Your task to perform on an android device: Turn off the flashlight Image 0: 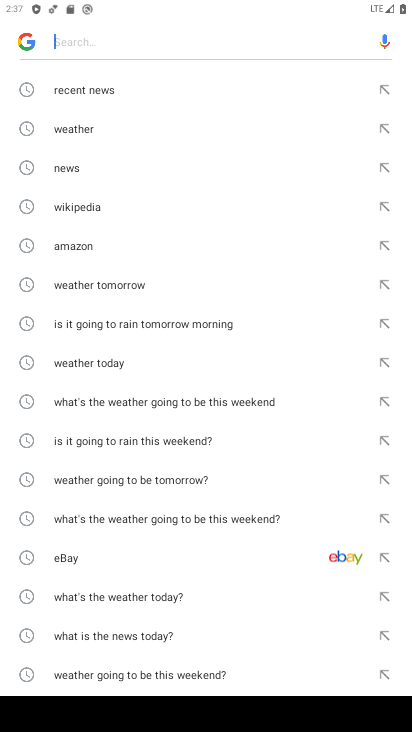
Step 0: press back button
Your task to perform on an android device: Turn off the flashlight Image 1: 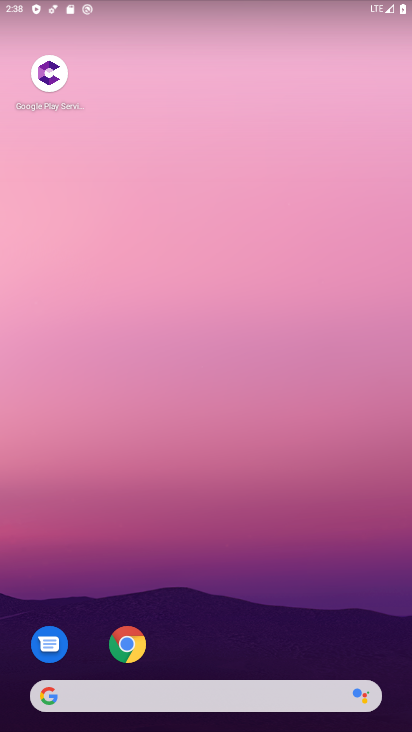
Step 1: task complete